Your task to perform on an android device: turn off notifications settings in the gmail app Image 0: 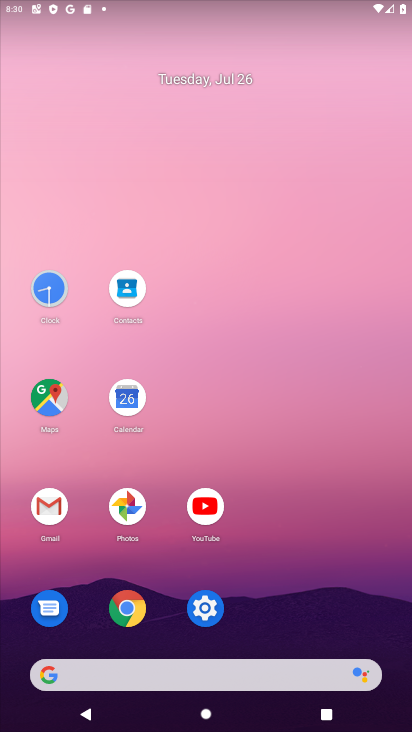
Step 0: click (42, 508)
Your task to perform on an android device: turn off notifications settings in the gmail app Image 1: 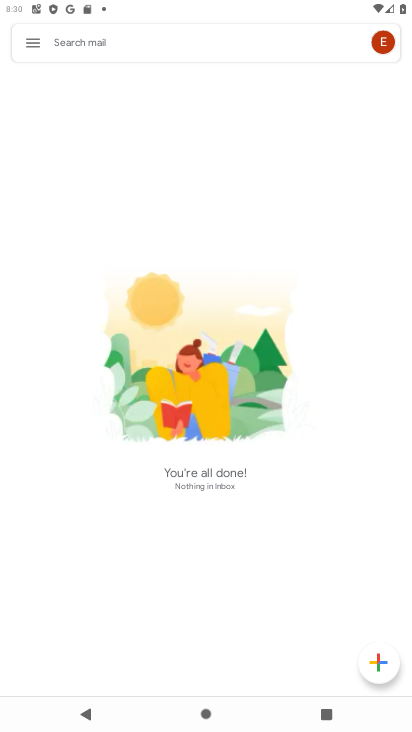
Step 1: click (33, 39)
Your task to perform on an android device: turn off notifications settings in the gmail app Image 2: 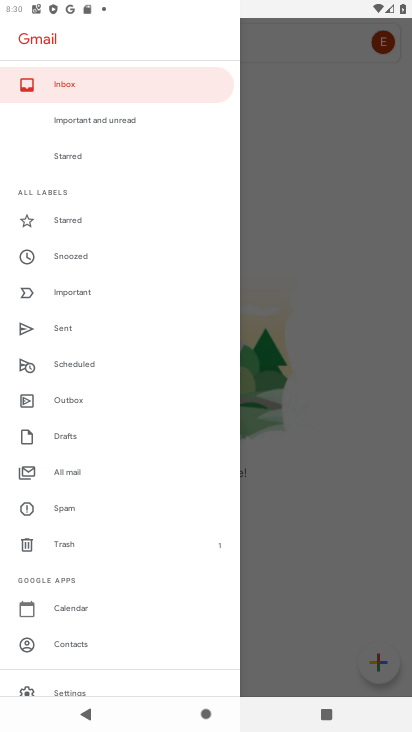
Step 2: click (58, 684)
Your task to perform on an android device: turn off notifications settings in the gmail app Image 3: 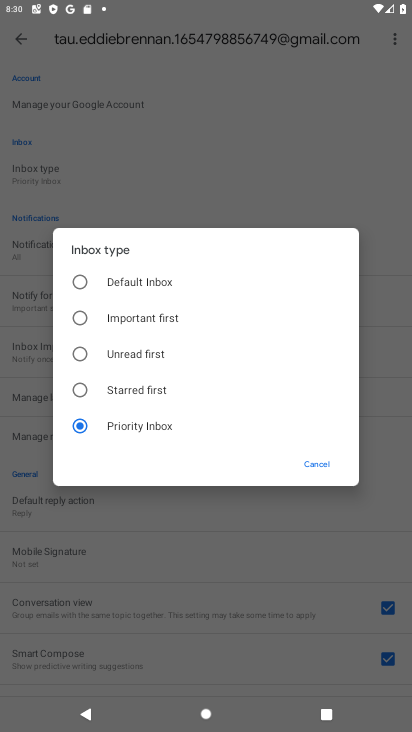
Step 3: click (313, 463)
Your task to perform on an android device: turn off notifications settings in the gmail app Image 4: 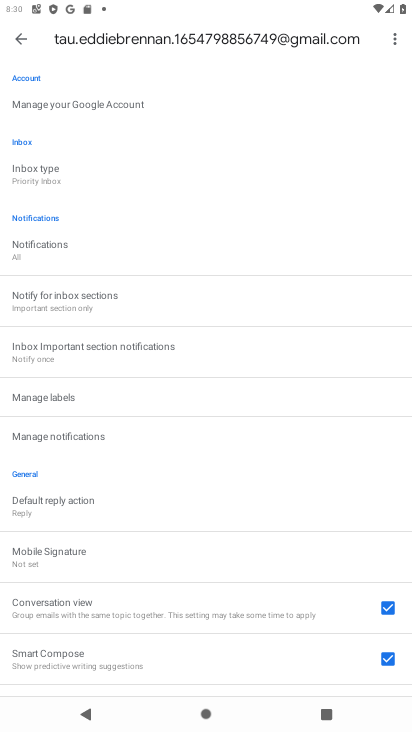
Step 4: click (18, 31)
Your task to perform on an android device: turn off notifications settings in the gmail app Image 5: 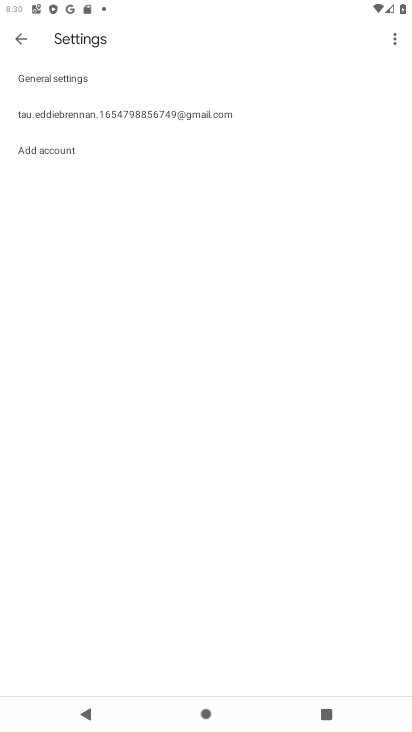
Step 5: click (48, 79)
Your task to perform on an android device: turn off notifications settings in the gmail app Image 6: 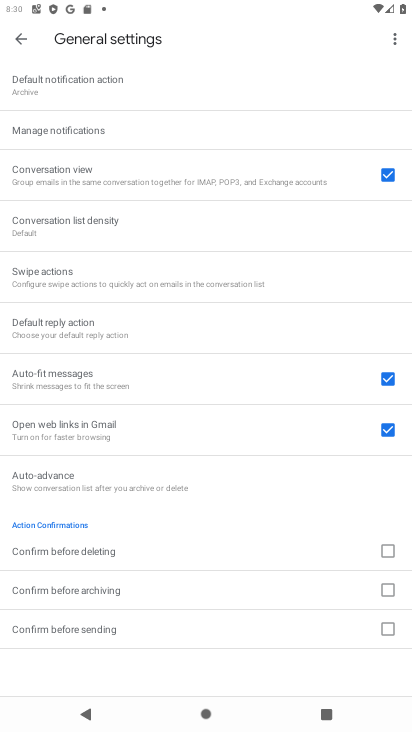
Step 6: click (59, 133)
Your task to perform on an android device: turn off notifications settings in the gmail app Image 7: 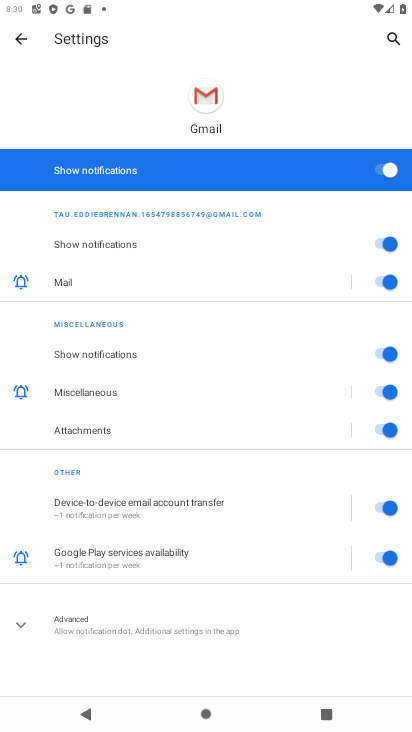
Step 7: click (380, 166)
Your task to perform on an android device: turn off notifications settings in the gmail app Image 8: 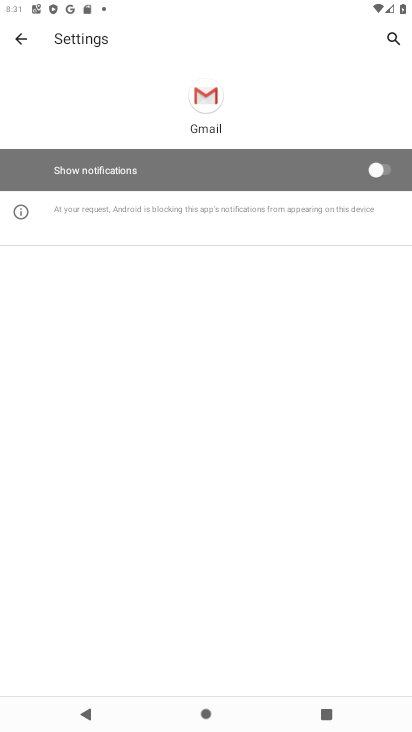
Step 8: task complete